Your task to perform on an android device: toggle translation in the chrome app Image 0: 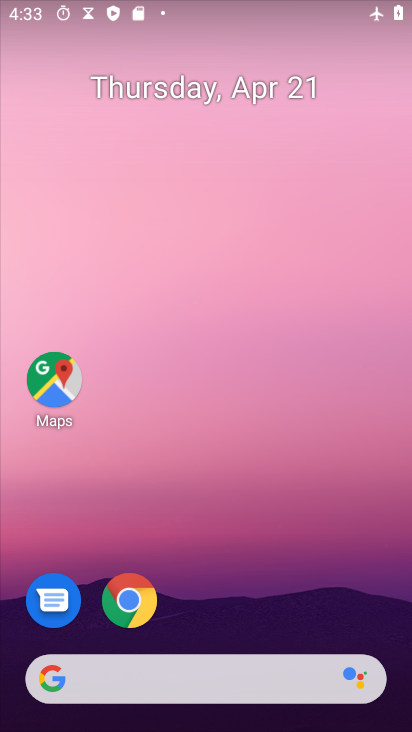
Step 0: click (131, 604)
Your task to perform on an android device: toggle translation in the chrome app Image 1: 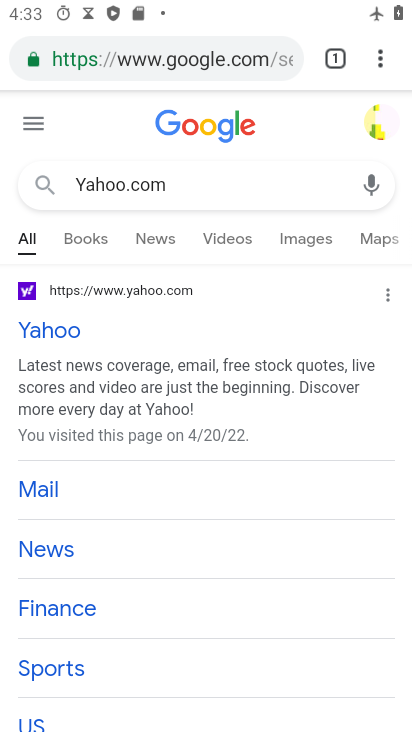
Step 1: click (382, 55)
Your task to perform on an android device: toggle translation in the chrome app Image 2: 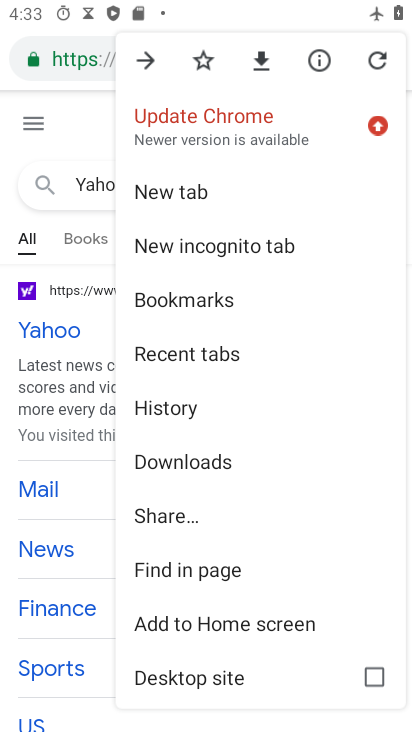
Step 2: drag from (240, 528) to (244, 339)
Your task to perform on an android device: toggle translation in the chrome app Image 3: 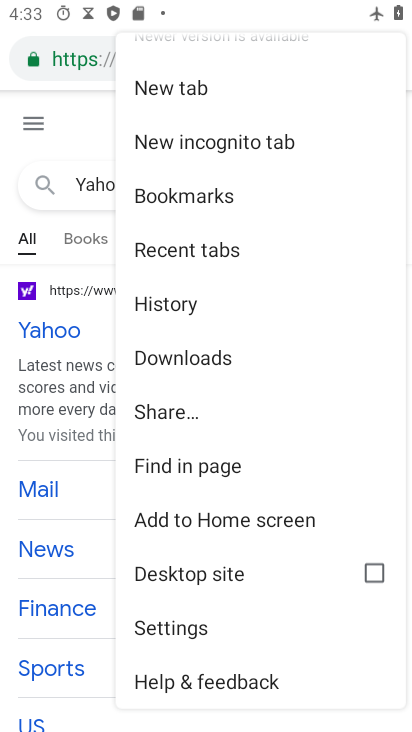
Step 3: click (180, 623)
Your task to perform on an android device: toggle translation in the chrome app Image 4: 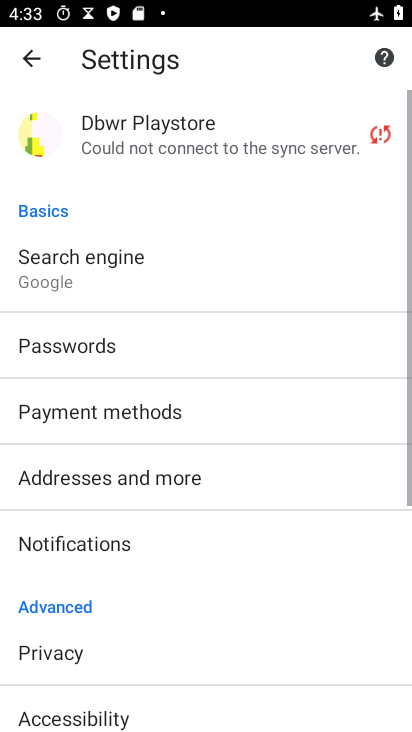
Step 4: drag from (186, 595) to (229, 458)
Your task to perform on an android device: toggle translation in the chrome app Image 5: 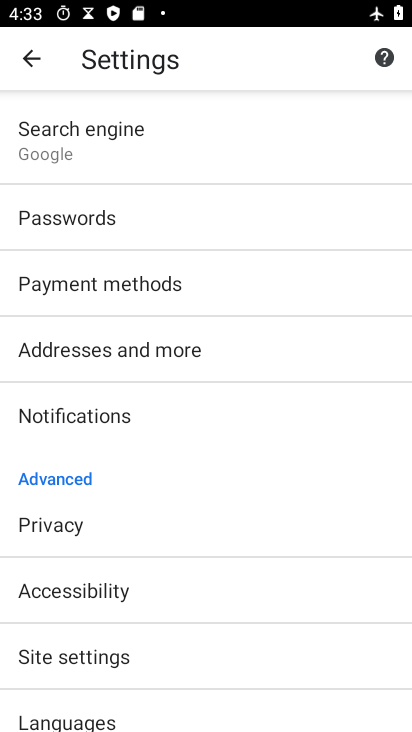
Step 5: drag from (186, 521) to (214, 444)
Your task to perform on an android device: toggle translation in the chrome app Image 6: 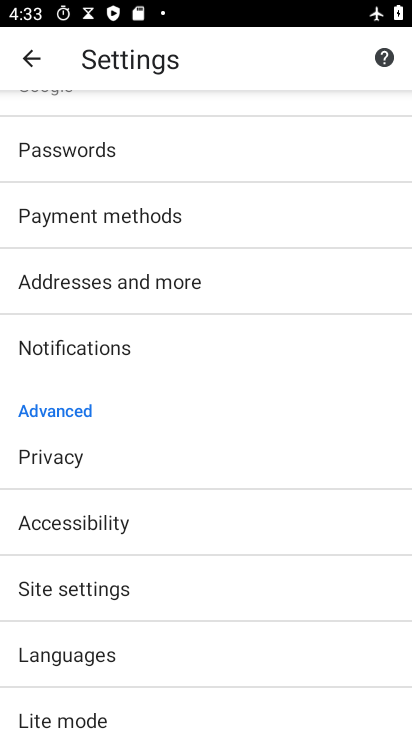
Step 6: drag from (147, 527) to (194, 436)
Your task to perform on an android device: toggle translation in the chrome app Image 7: 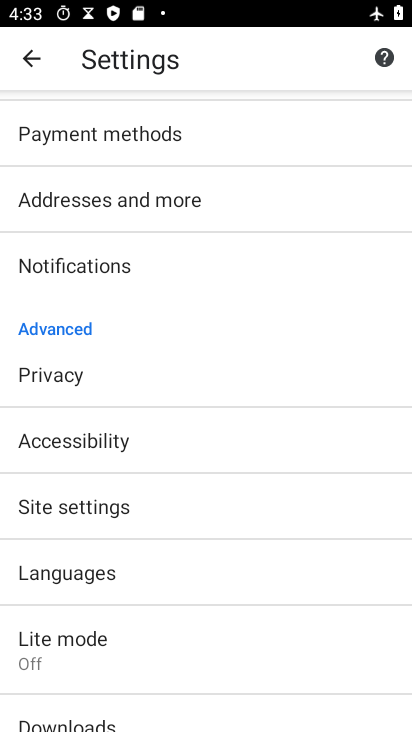
Step 7: click (95, 568)
Your task to perform on an android device: toggle translation in the chrome app Image 8: 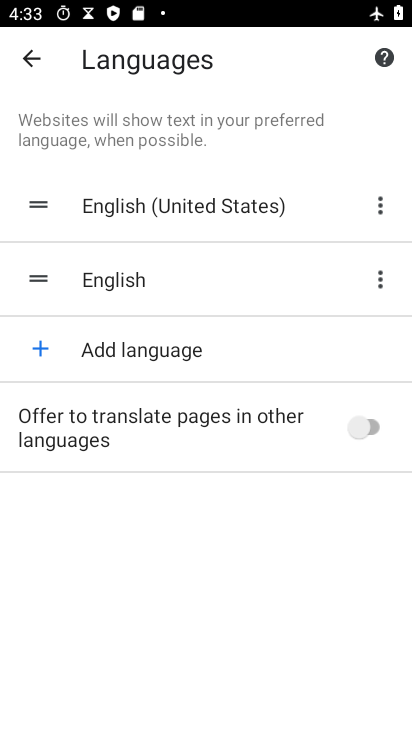
Step 8: click (358, 428)
Your task to perform on an android device: toggle translation in the chrome app Image 9: 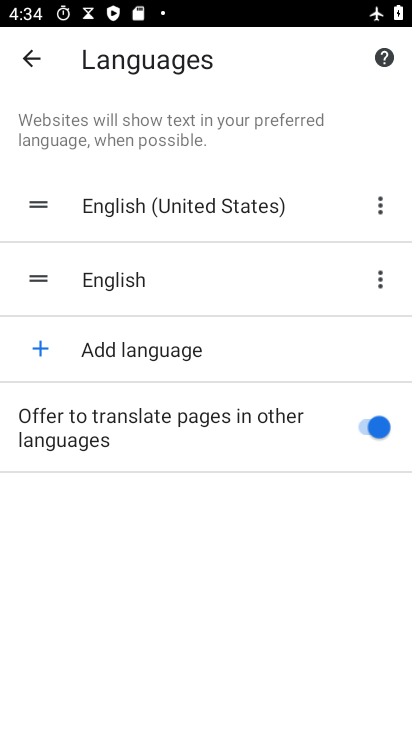
Step 9: task complete